Your task to perform on an android device: Go to privacy settings Image 0: 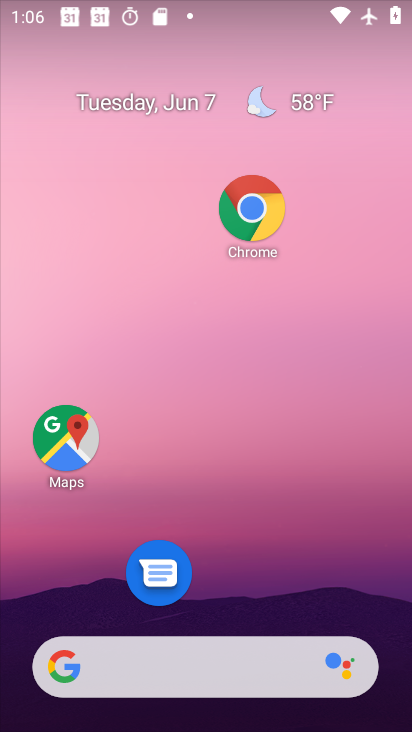
Step 0: drag from (220, 582) to (226, 82)
Your task to perform on an android device: Go to privacy settings Image 1: 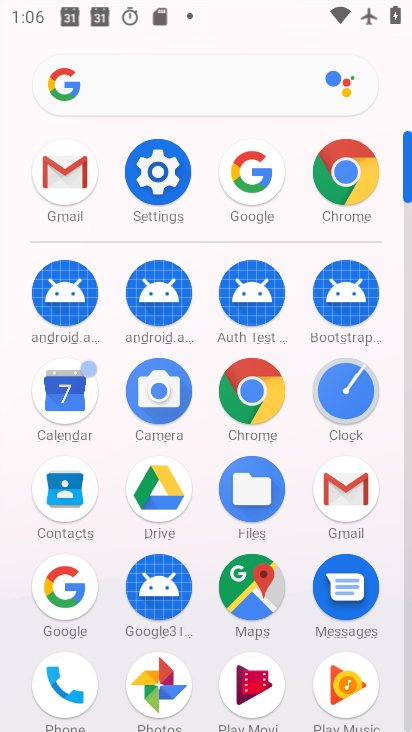
Step 1: click (166, 172)
Your task to perform on an android device: Go to privacy settings Image 2: 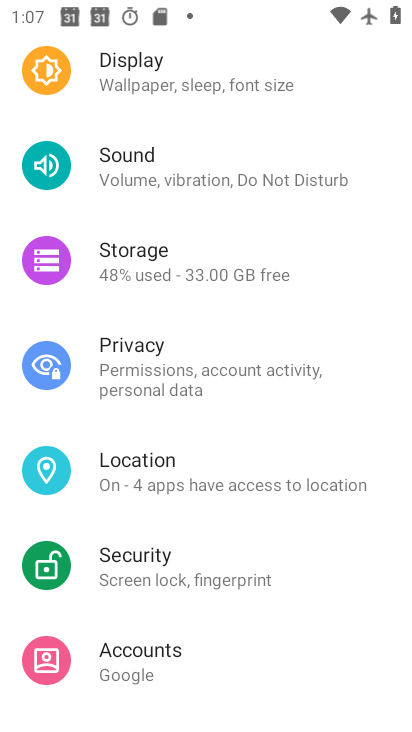
Step 2: click (200, 359)
Your task to perform on an android device: Go to privacy settings Image 3: 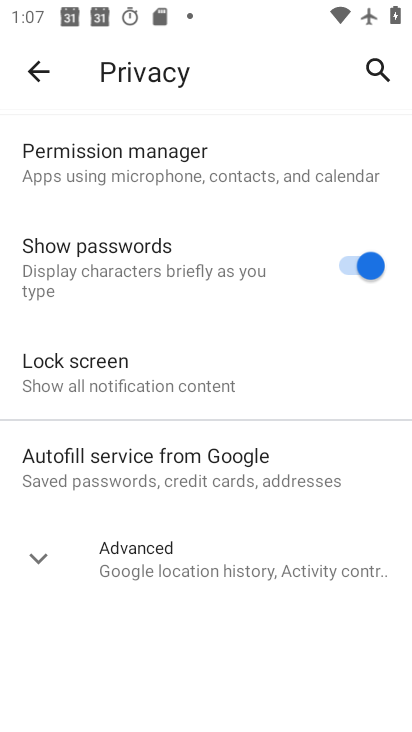
Step 3: task complete